Your task to perform on an android device: What's on my calendar today? Image 0: 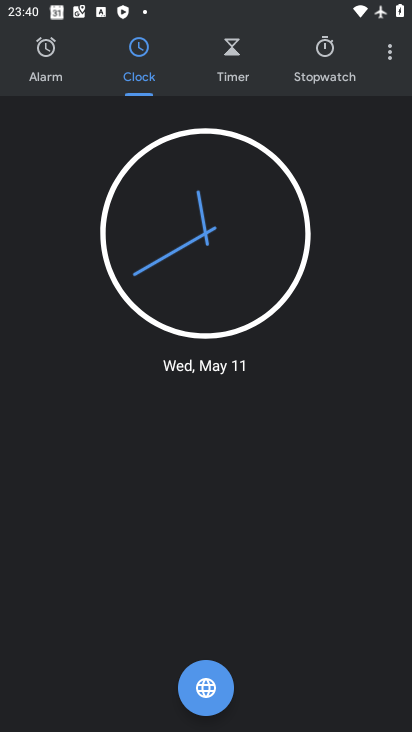
Step 0: press home button
Your task to perform on an android device: What's on my calendar today? Image 1: 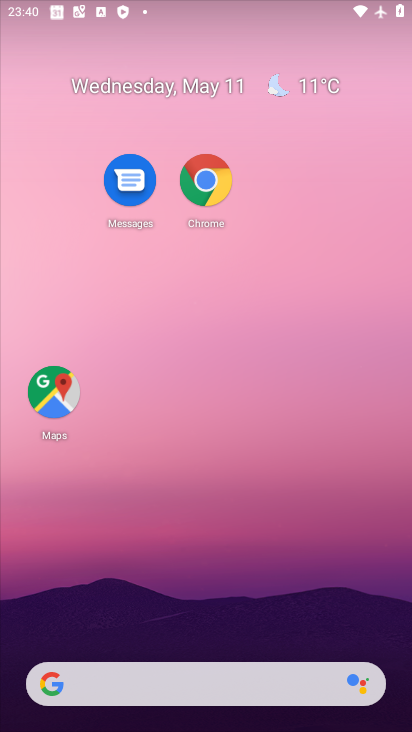
Step 1: drag from (259, 619) to (309, 194)
Your task to perform on an android device: What's on my calendar today? Image 2: 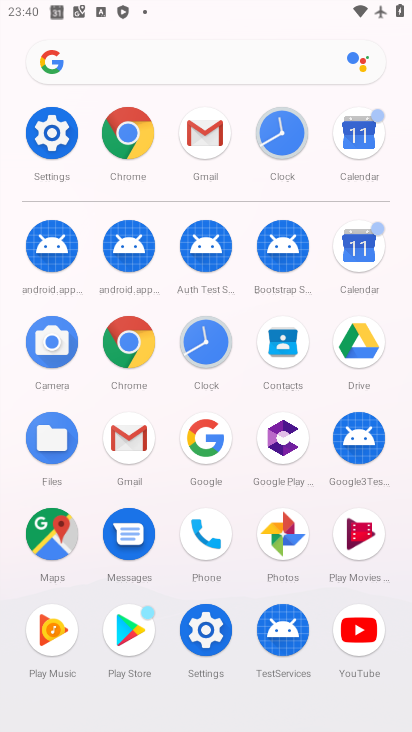
Step 2: click (336, 258)
Your task to perform on an android device: What's on my calendar today? Image 3: 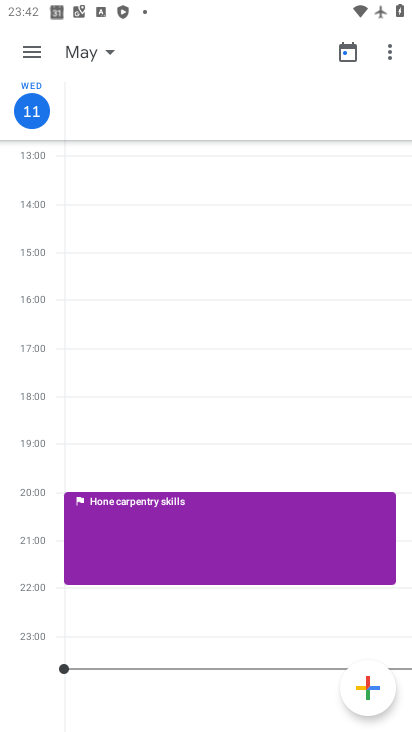
Step 3: task complete